Your task to perform on an android device: Search for vegetarian restaurants on Maps Image 0: 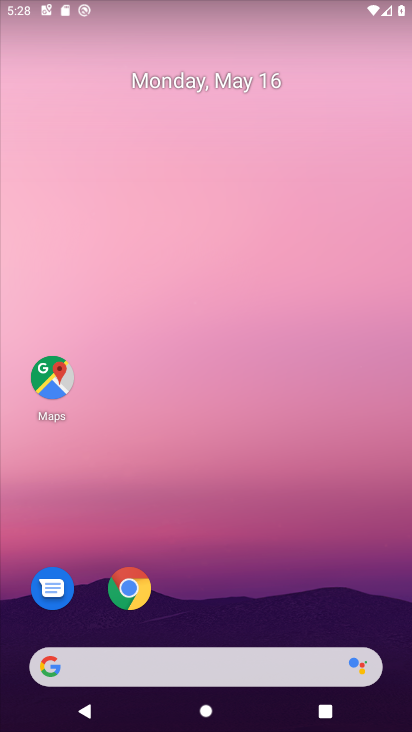
Step 0: click (63, 378)
Your task to perform on an android device: Search for vegetarian restaurants on Maps Image 1: 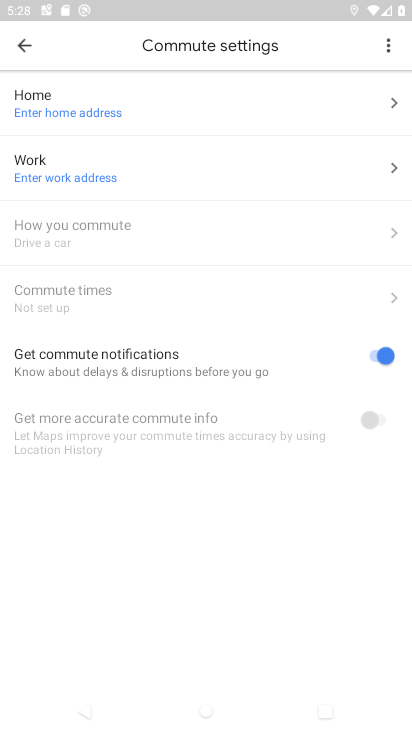
Step 1: press home button
Your task to perform on an android device: Search for vegetarian restaurants on Maps Image 2: 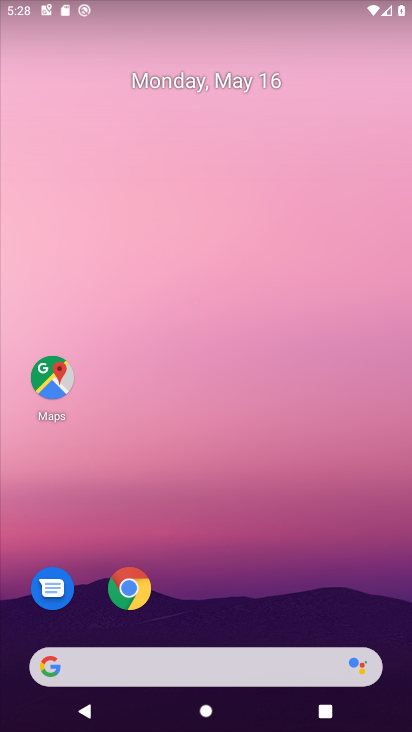
Step 2: click (58, 385)
Your task to perform on an android device: Search for vegetarian restaurants on Maps Image 3: 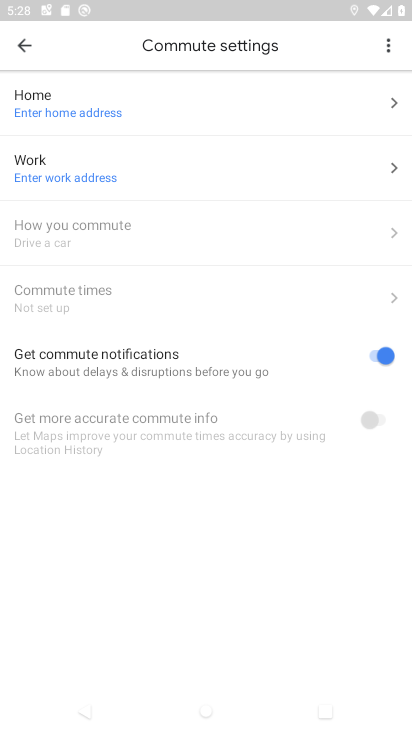
Step 3: click (33, 51)
Your task to perform on an android device: Search for vegetarian restaurants on Maps Image 4: 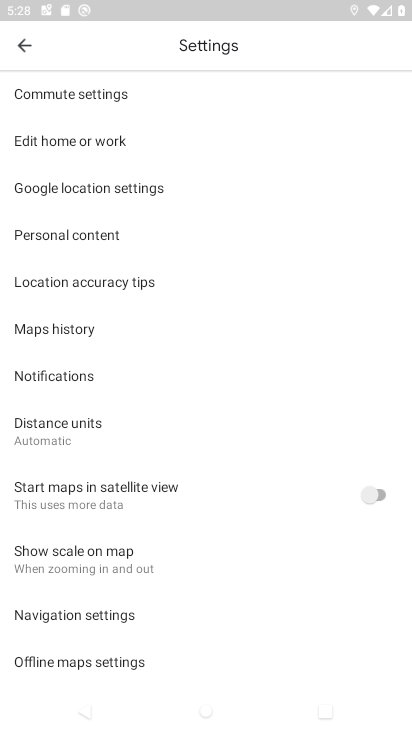
Step 4: click (24, 44)
Your task to perform on an android device: Search for vegetarian restaurants on Maps Image 5: 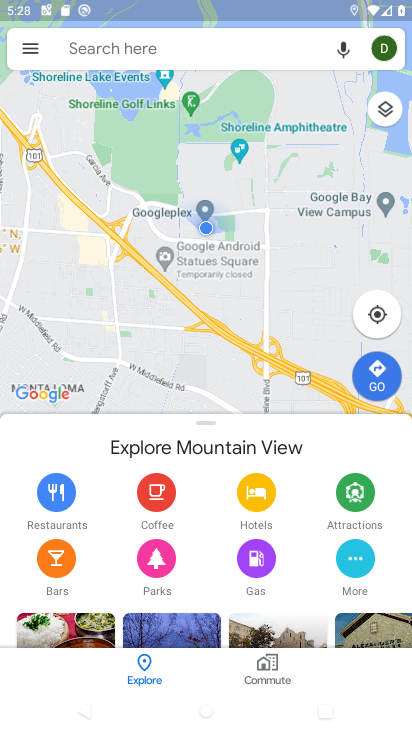
Step 5: click (192, 54)
Your task to perform on an android device: Search for vegetarian restaurants on Maps Image 6: 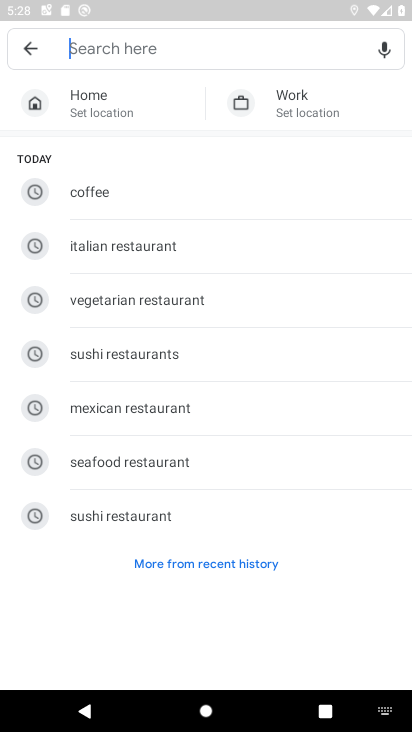
Step 6: click (134, 288)
Your task to perform on an android device: Search for vegetarian restaurants on Maps Image 7: 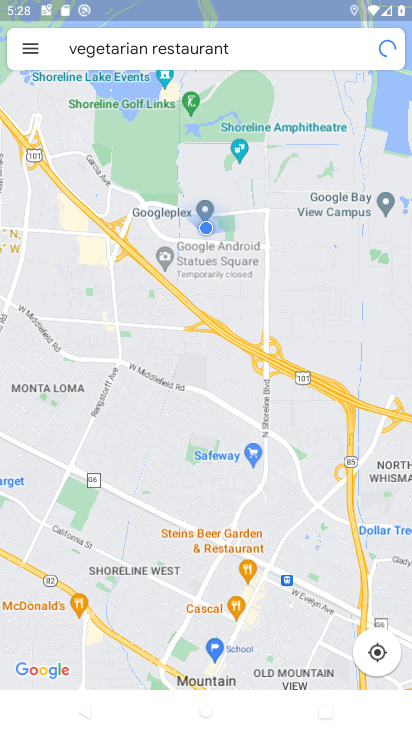
Step 7: task complete